Your task to perform on an android device: turn pop-ups on in chrome Image 0: 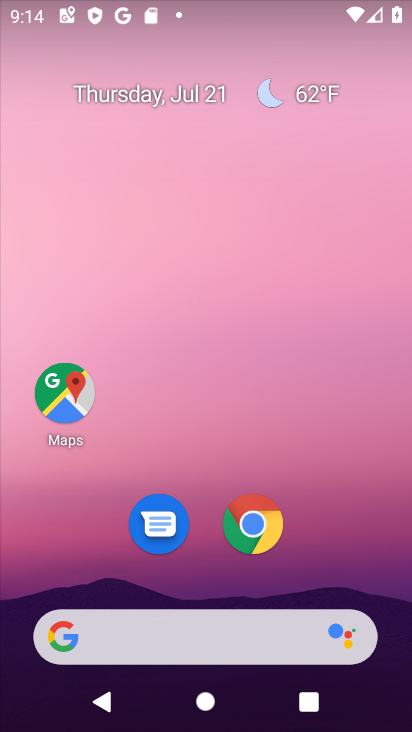
Step 0: press home button
Your task to perform on an android device: turn pop-ups on in chrome Image 1: 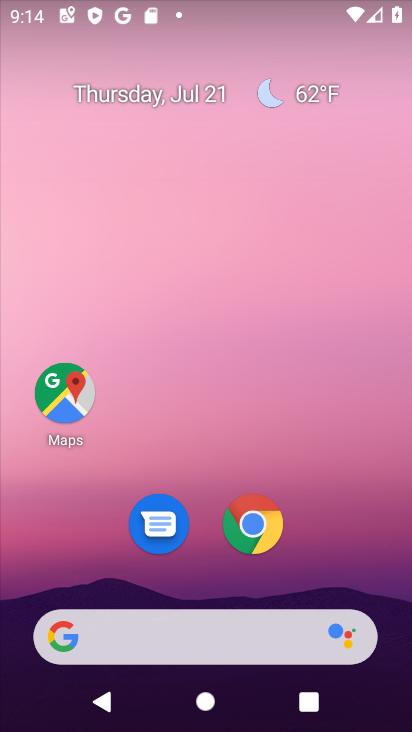
Step 1: click (256, 525)
Your task to perform on an android device: turn pop-ups on in chrome Image 2: 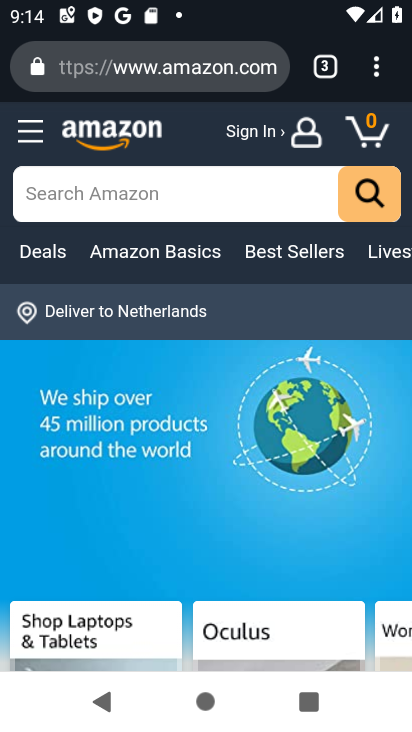
Step 2: drag from (377, 68) to (209, 525)
Your task to perform on an android device: turn pop-ups on in chrome Image 3: 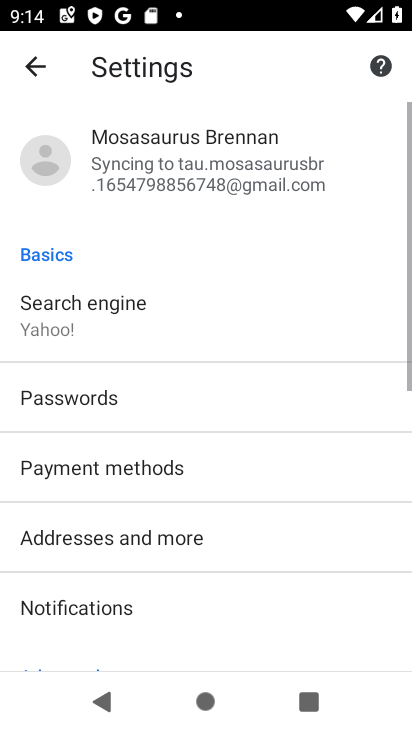
Step 3: drag from (190, 609) to (328, 151)
Your task to perform on an android device: turn pop-ups on in chrome Image 4: 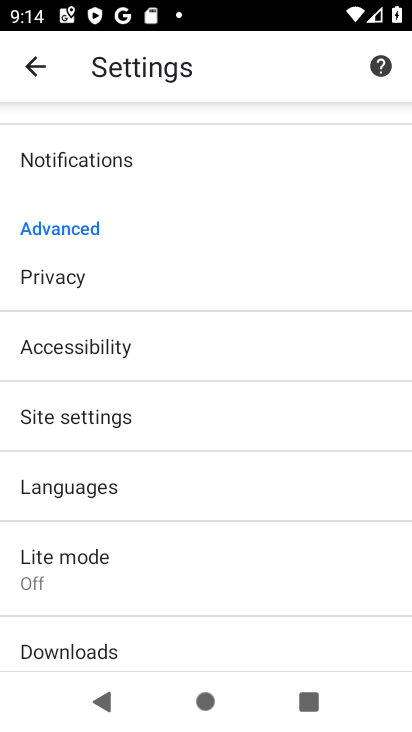
Step 4: click (115, 413)
Your task to perform on an android device: turn pop-ups on in chrome Image 5: 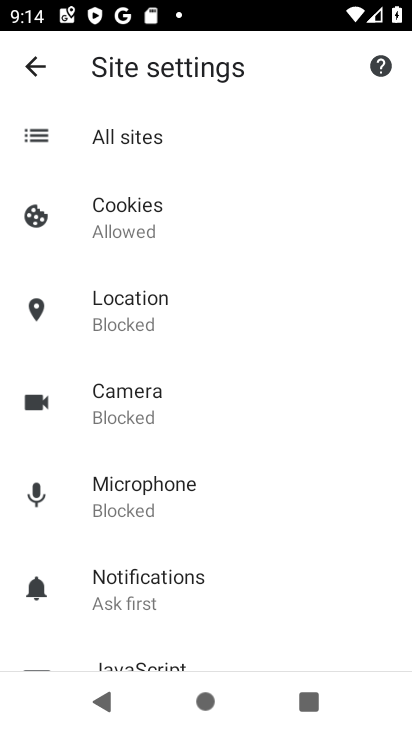
Step 5: drag from (231, 562) to (309, 182)
Your task to perform on an android device: turn pop-ups on in chrome Image 6: 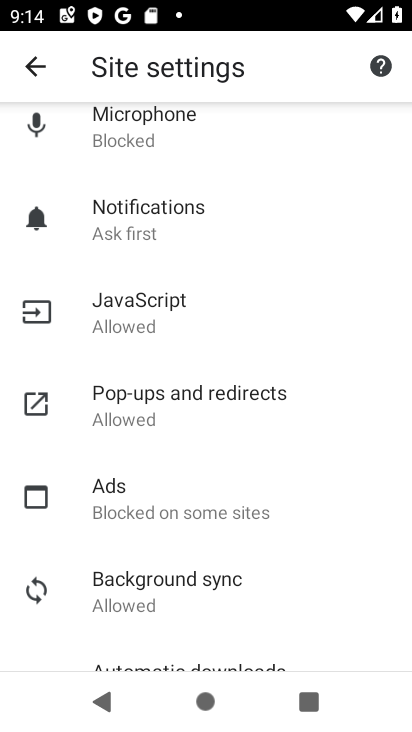
Step 6: click (187, 411)
Your task to perform on an android device: turn pop-ups on in chrome Image 7: 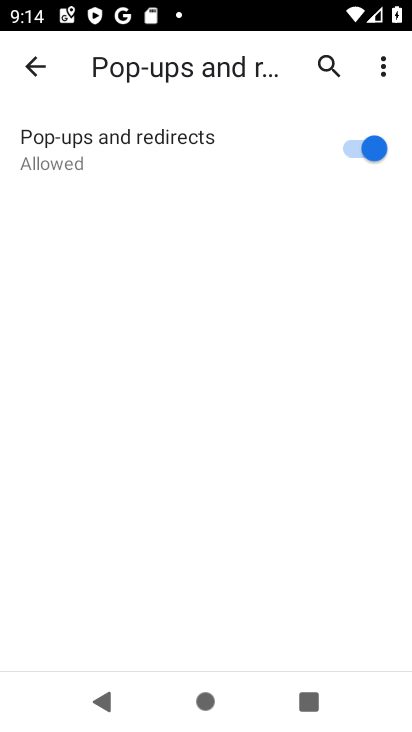
Step 7: task complete